Your task to perform on an android device: Open Wikipedia Image 0: 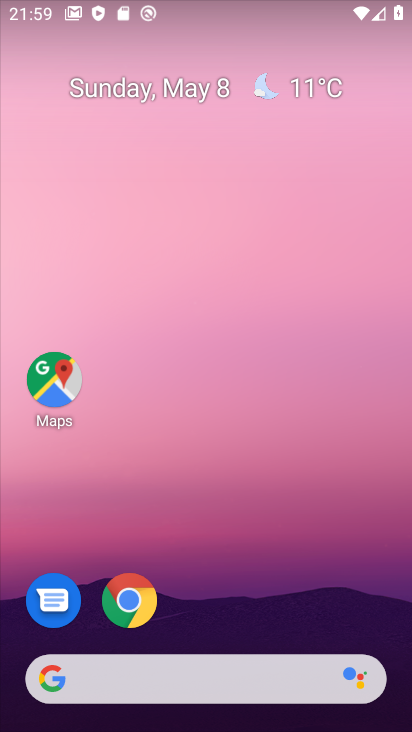
Step 0: click (126, 599)
Your task to perform on an android device: Open Wikipedia Image 1: 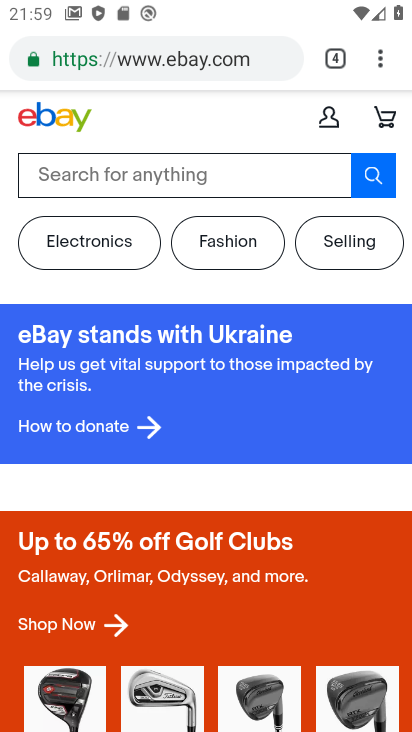
Step 1: click (331, 61)
Your task to perform on an android device: Open Wikipedia Image 2: 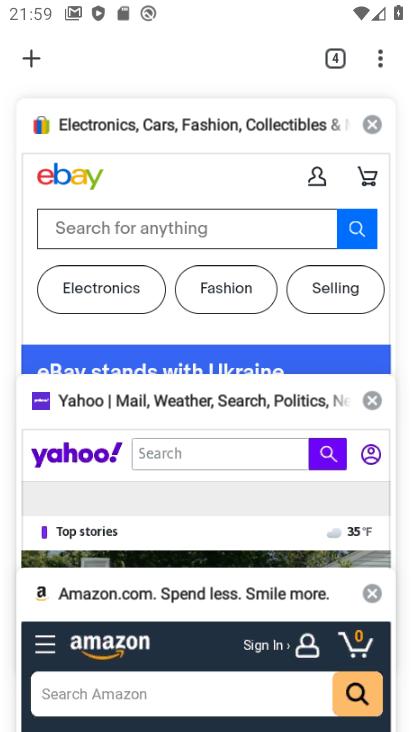
Step 2: click (38, 58)
Your task to perform on an android device: Open Wikipedia Image 3: 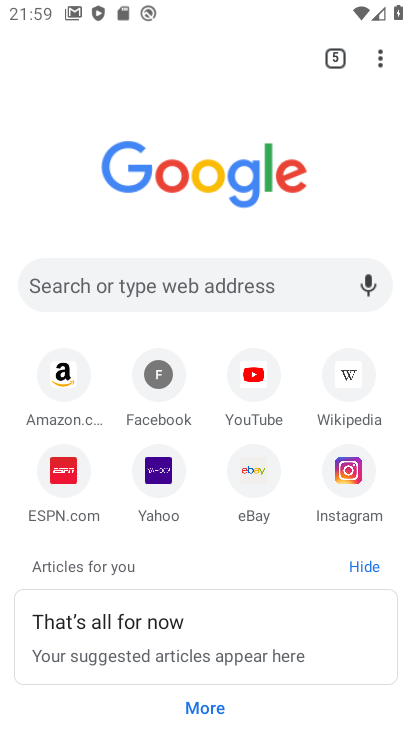
Step 3: click (360, 369)
Your task to perform on an android device: Open Wikipedia Image 4: 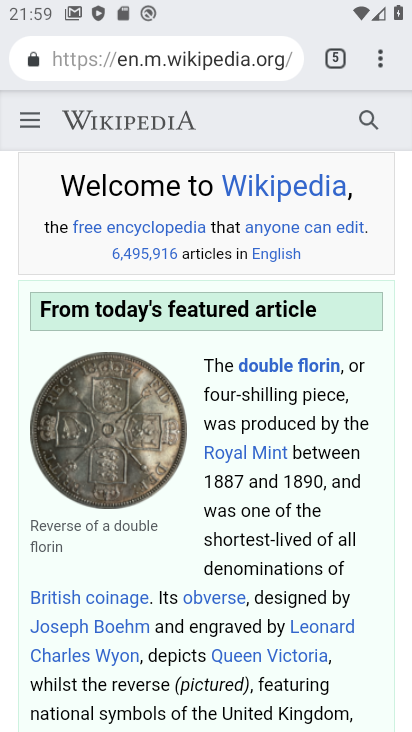
Step 4: task complete